Your task to perform on an android device: Go to location settings Image 0: 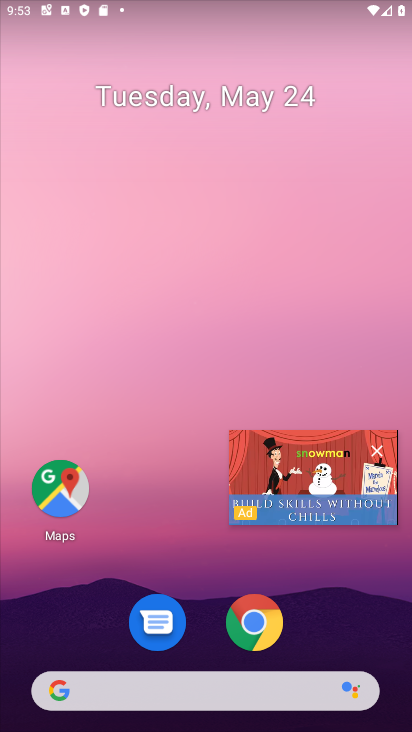
Step 0: click (376, 451)
Your task to perform on an android device: Go to location settings Image 1: 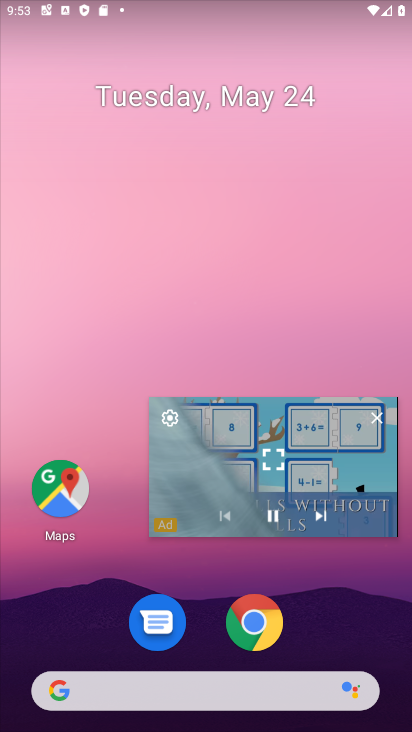
Step 1: click (387, 418)
Your task to perform on an android device: Go to location settings Image 2: 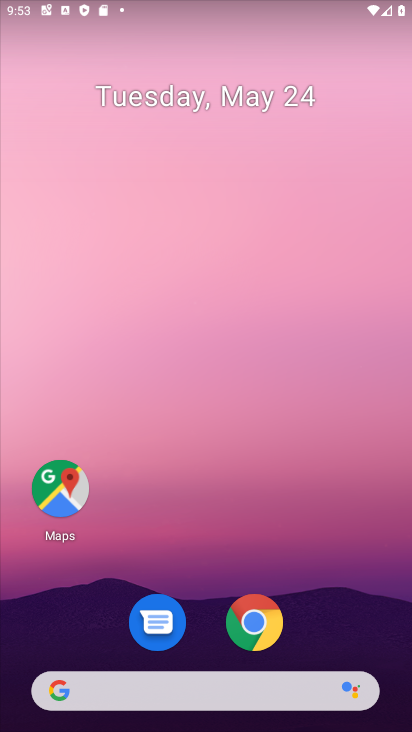
Step 2: drag from (233, 714) to (257, 57)
Your task to perform on an android device: Go to location settings Image 3: 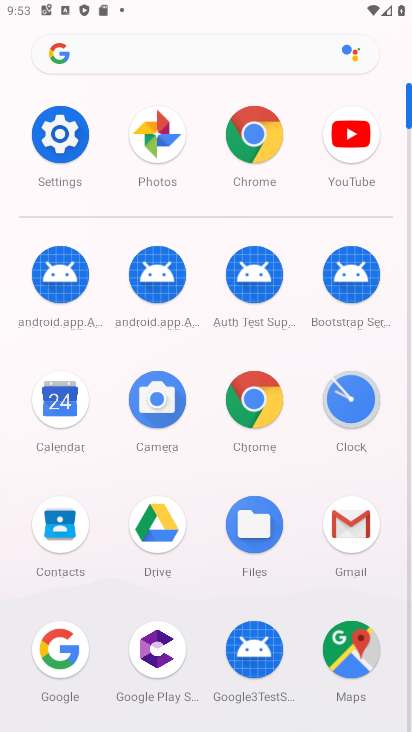
Step 3: click (49, 134)
Your task to perform on an android device: Go to location settings Image 4: 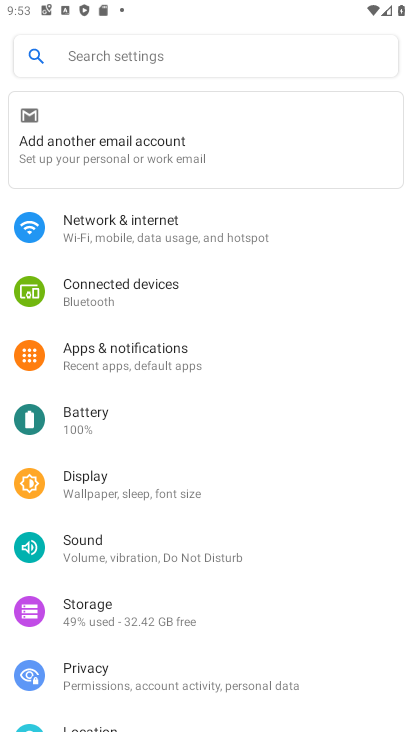
Step 4: click (137, 52)
Your task to perform on an android device: Go to location settings Image 5: 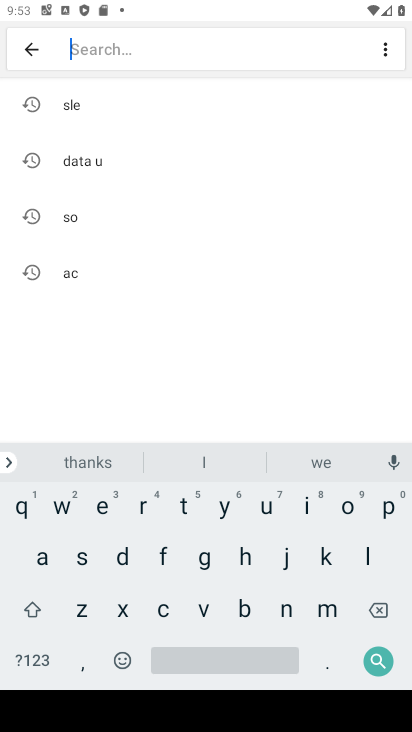
Step 5: click (353, 560)
Your task to perform on an android device: Go to location settings Image 6: 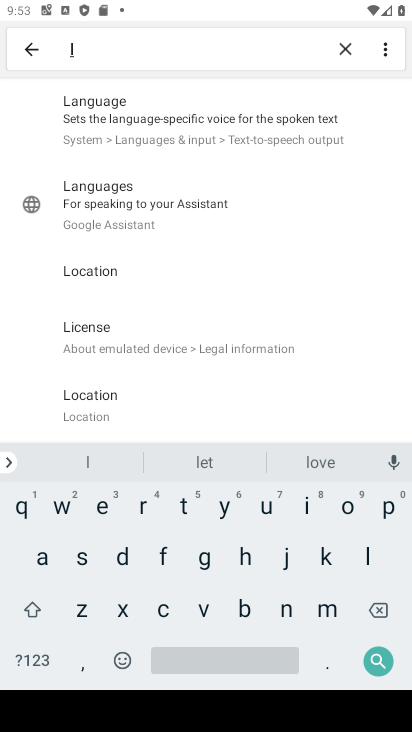
Step 6: click (97, 403)
Your task to perform on an android device: Go to location settings Image 7: 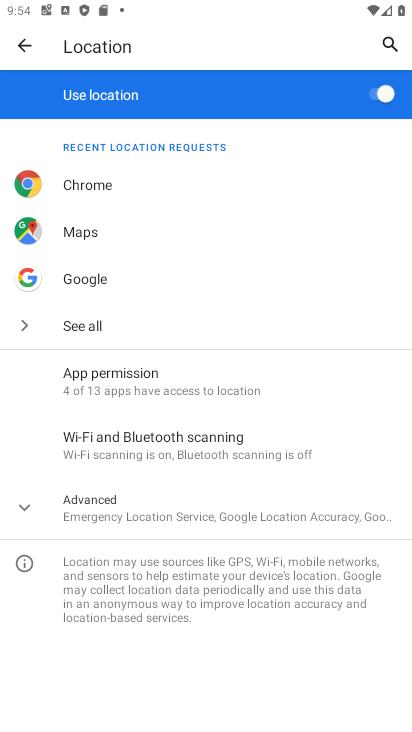
Step 7: task complete